Your task to perform on an android device: Open settings on Google Maps Image 0: 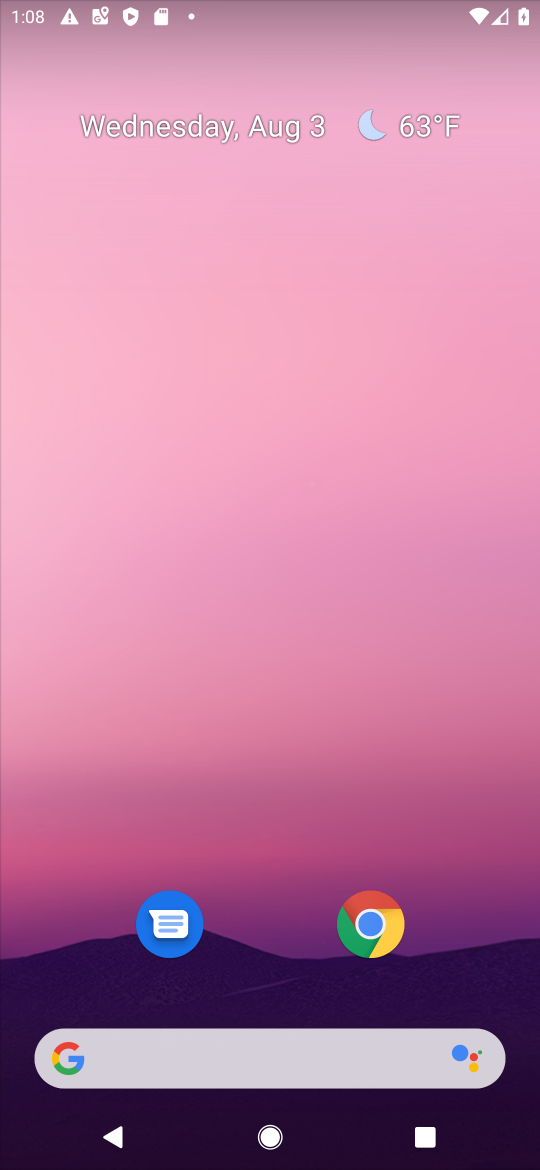
Step 0: drag from (197, 921) to (374, 44)
Your task to perform on an android device: Open settings on Google Maps Image 1: 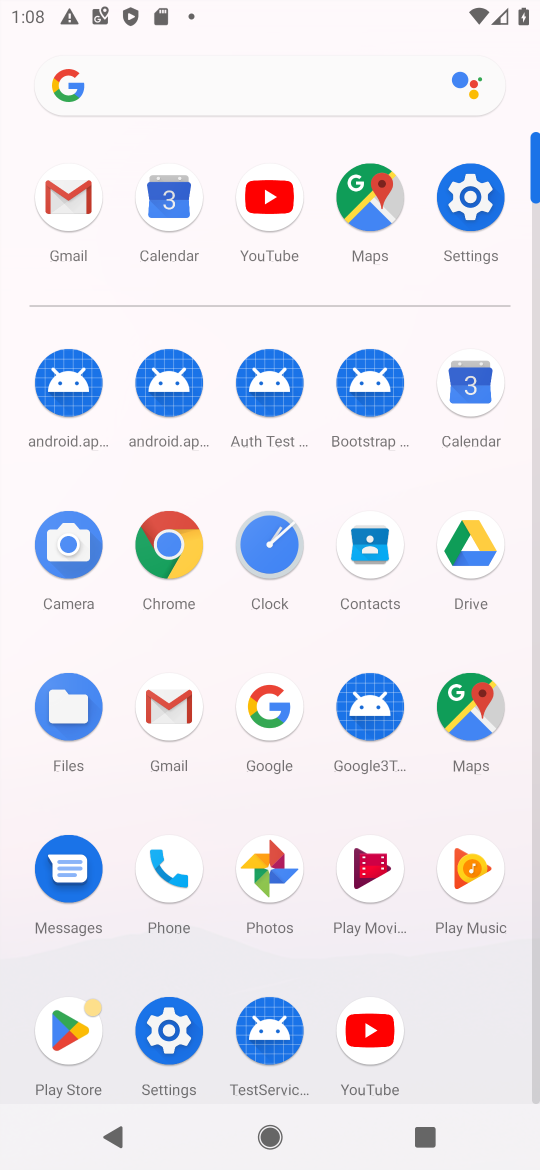
Step 1: click (483, 709)
Your task to perform on an android device: Open settings on Google Maps Image 2: 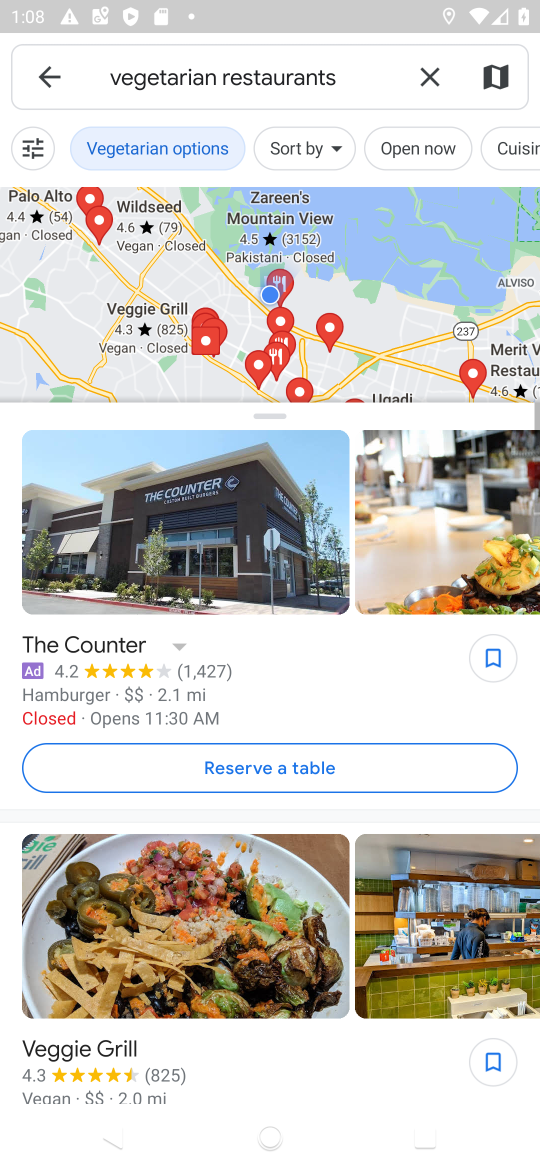
Step 2: click (38, 86)
Your task to perform on an android device: Open settings on Google Maps Image 3: 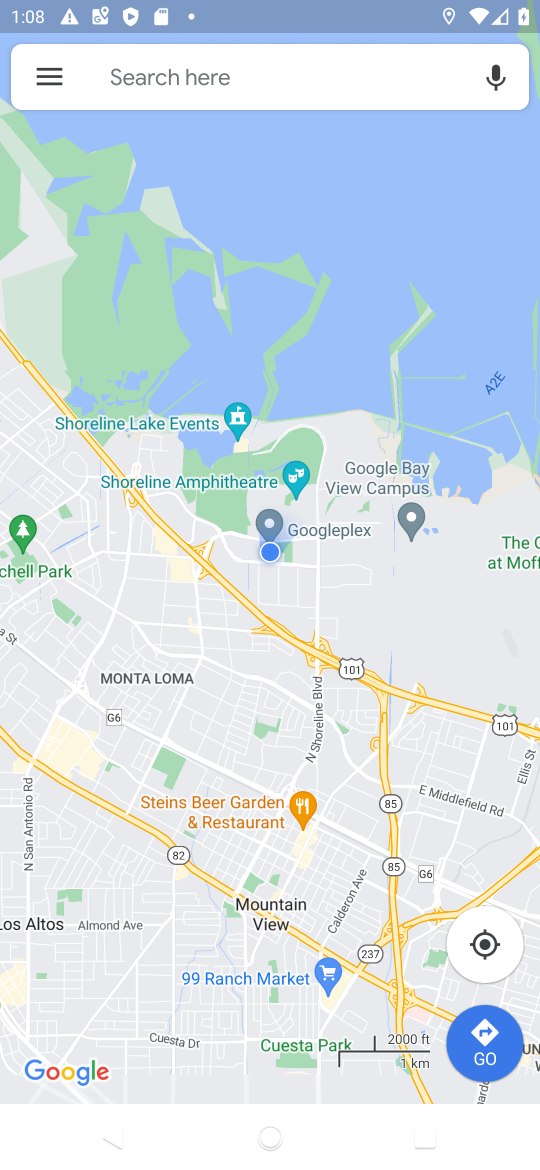
Step 3: click (39, 85)
Your task to perform on an android device: Open settings on Google Maps Image 4: 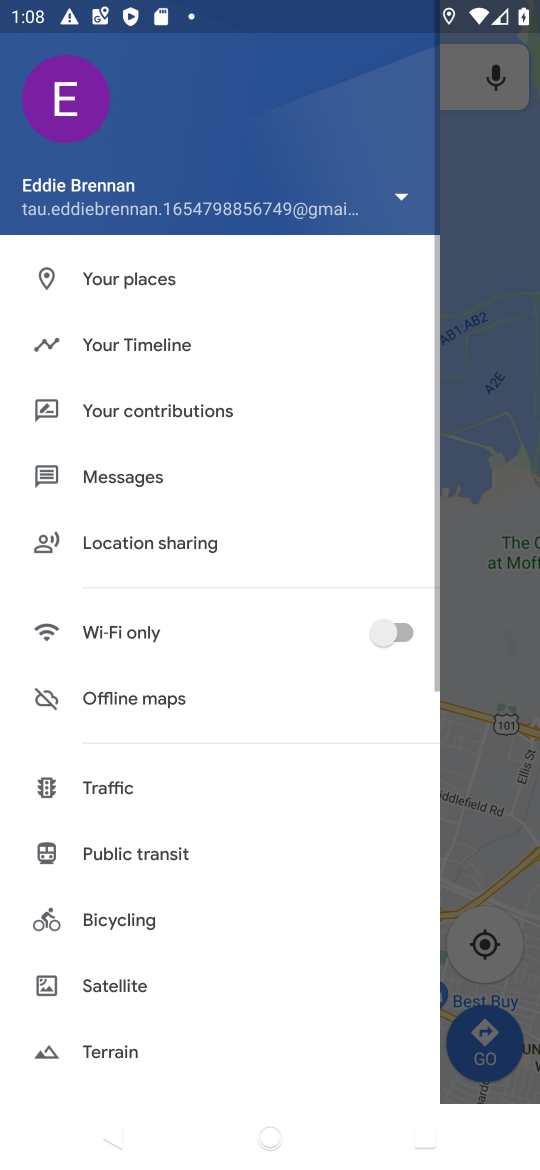
Step 4: drag from (164, 1056) to (268, 128)
Your task to perform on an android device: Open settings on Google Maps Image 5: 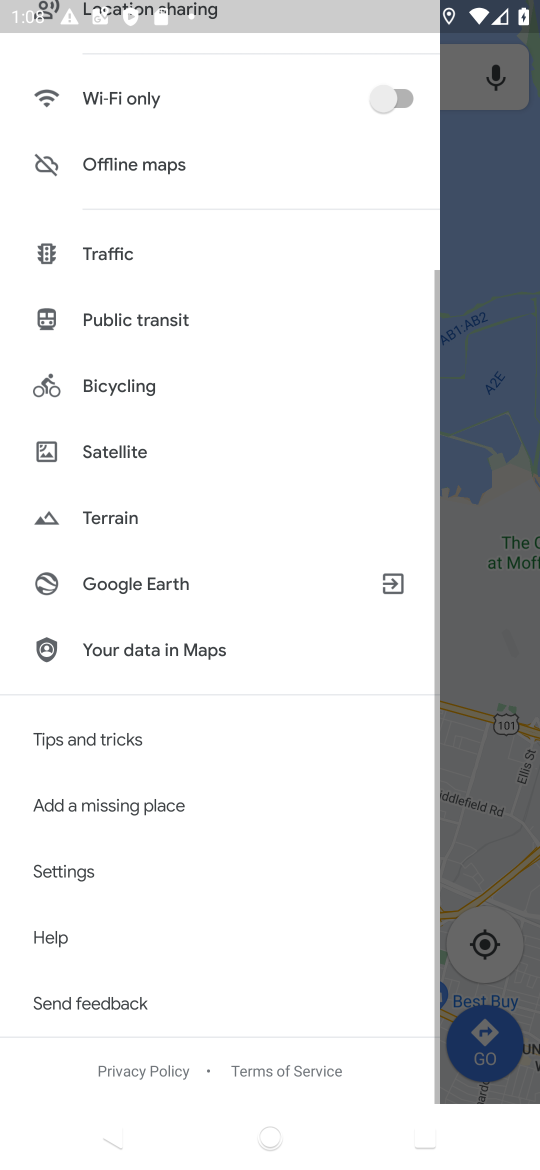
Step 5: click (108, 861)
Your task to perform on an android device: Open settings on Google Maps Image 6: 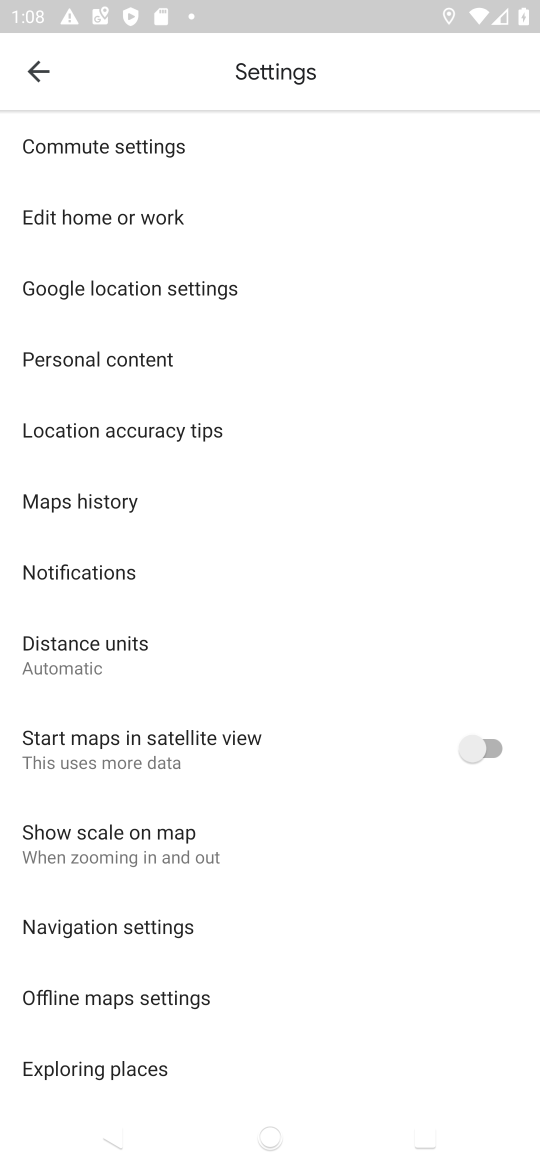
Step 6: task complete